Your task to perform on an android device: allow cookies in the chrome app Image 0: 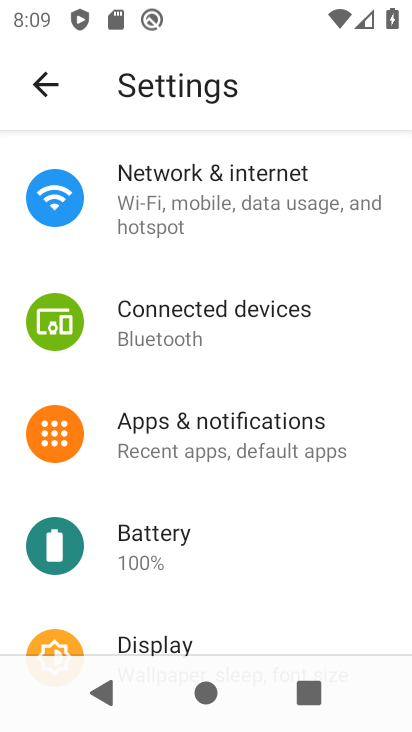
Step 0: drag from (226, 580) to (264, 466)
Your task to perform on an android device: allow cookies in the chrome app Image 1: 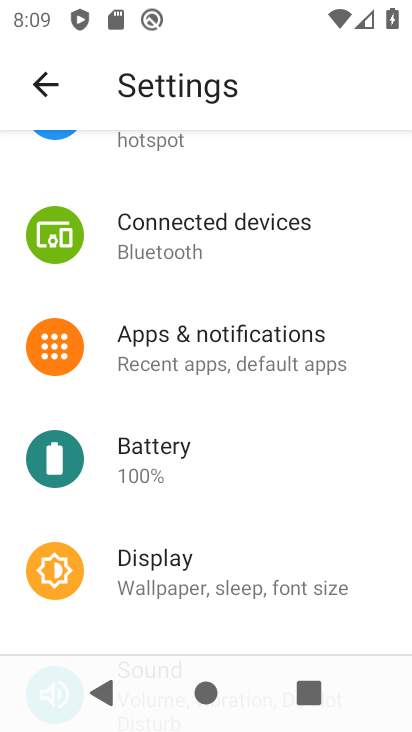
Step 1: press home button
Your task to perform on an android device: allow cookies in the chrome app Image 2: 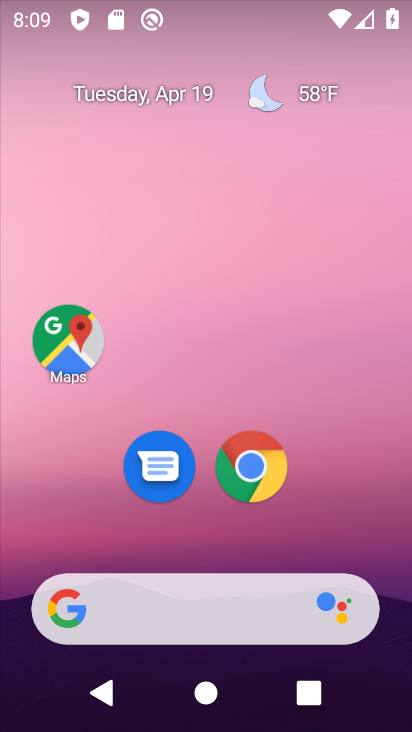
Step 2: drag from (309, 537) to (362, 158)
Your task to perform on an android device: allow cookies in the chrome app Image 3: 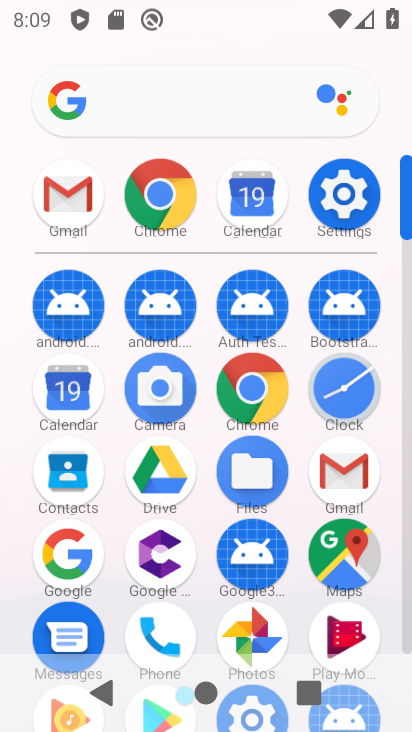
Step 3: click (160, 190)
Your task to perform on an android device: allow cookies in the chrome app Image 4: 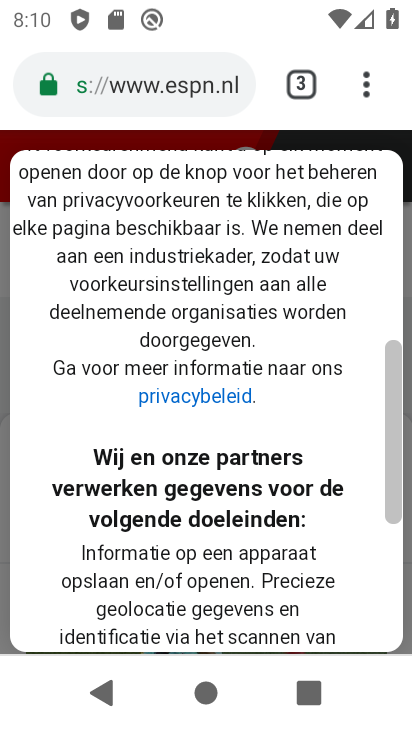
Step 4: click (371, 81)
Your task to perform on an android device: allow cookies in the chrome app Image 5: 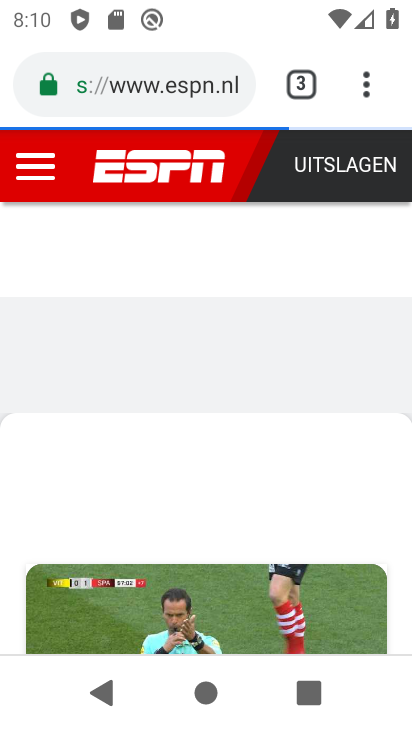
Step 5: click (365, 81)
Your task to perform on an android device: allow cookies in the chrome app Image 6: 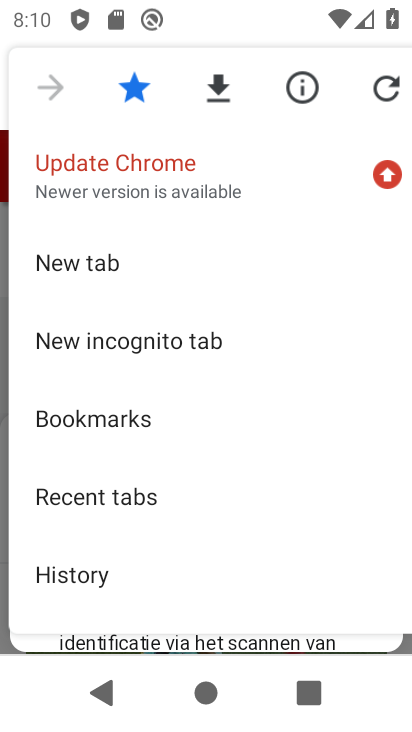
Step 6: drag from (174, 539) to (201, 219)
Your task to perform on an android device: allow cookies in the chrome app Image 7: 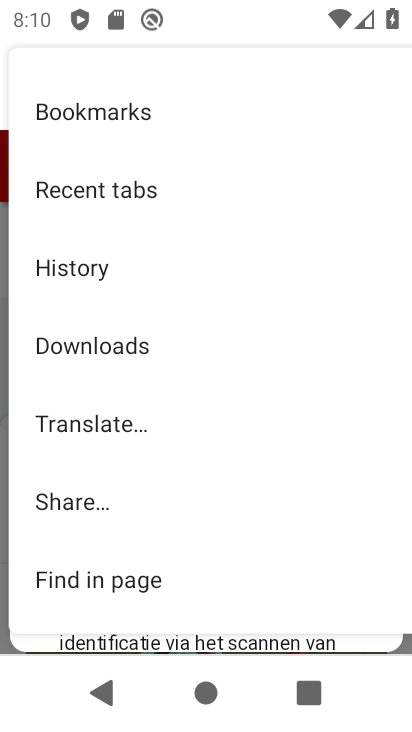
Step 7: drag from (185, 545) to (235, 172)
Your task to perform on an android device: allow cookies in the chrome app Image 8: 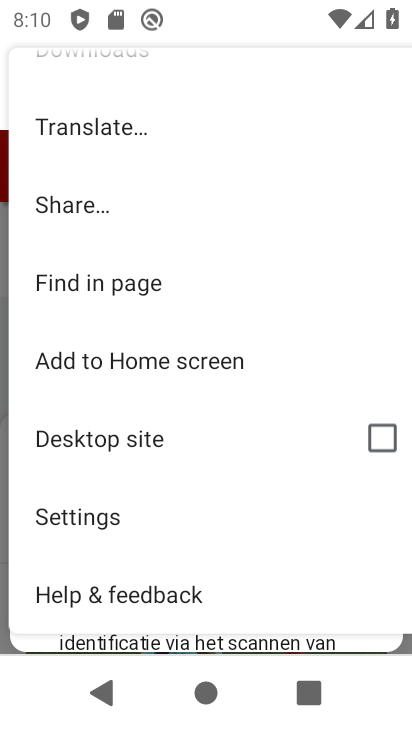
Step 8: click (148, 508)
Your task to perform on an android device: allow cookies in the chrome app Image 9: 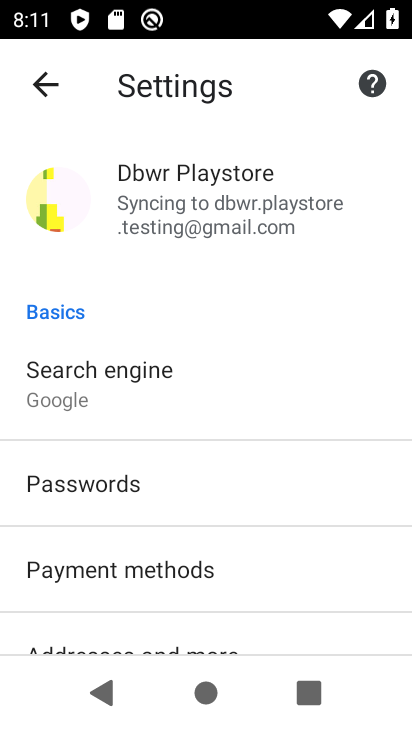
Step 9: drag from (193, 610) to (220, 206)
Your task to perform on an android device: allow cookies in the chrome app Image 10: 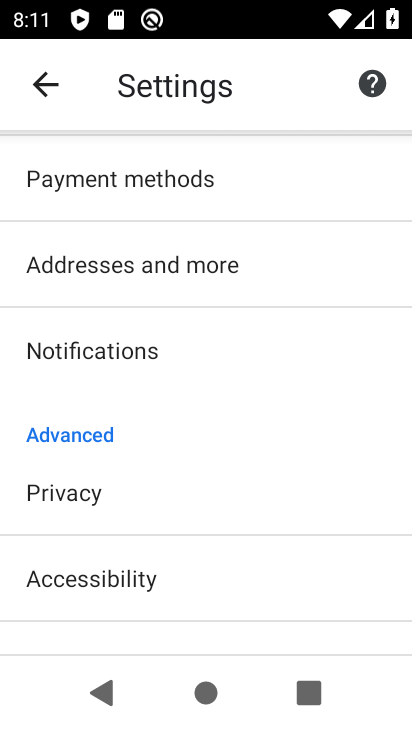
Step 10: drag from (212, 583) to (214, 457)
Your task to perform on an android device: allow cookies in the chrome app Image 11: 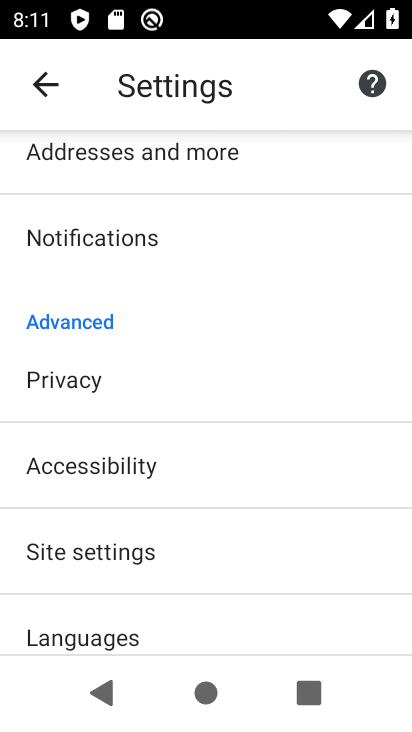
Step 11: drag from (148, 461) to (181, 263)
Your task to perform on an android device: allow cookies in the chrome app Image 12: 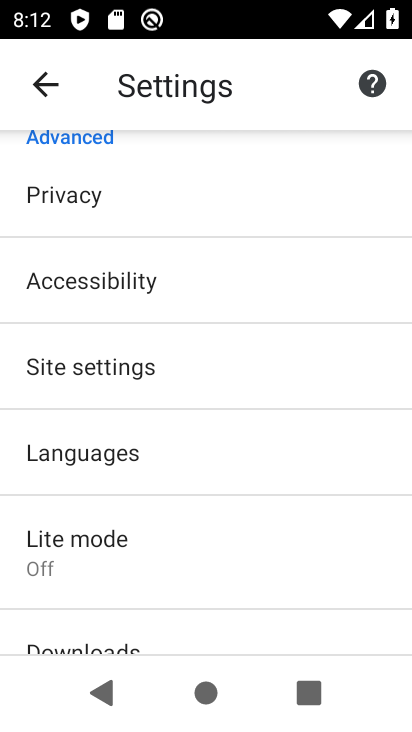
Step 12: click (190, 351)
Your task to perform on an android device: allow cookies in the chrome app Image 13: 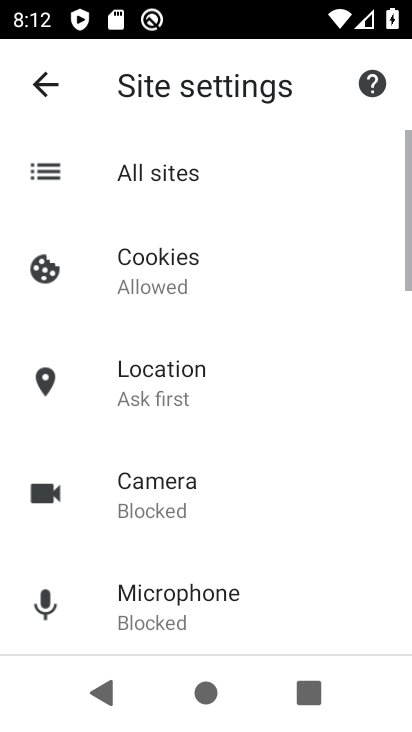
Step 13: click (184, 281)
Your task to perform on an android device: allow cookies in the chrome app Image 14: 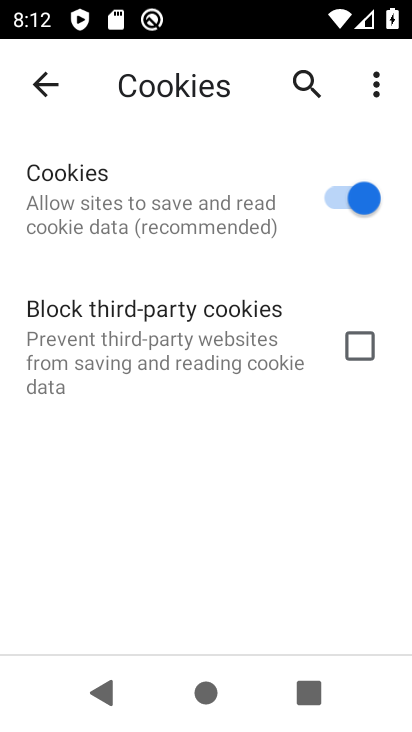
Step 14: task complete